Your task to perform on an android device: see creations saved in the google photos Image 0: 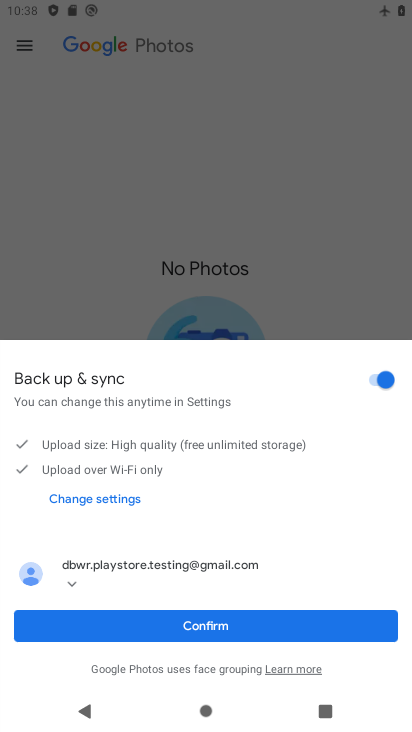
Step 0: press home button
Your task to perform on an android device: see creations saved in the google photos Image 1: 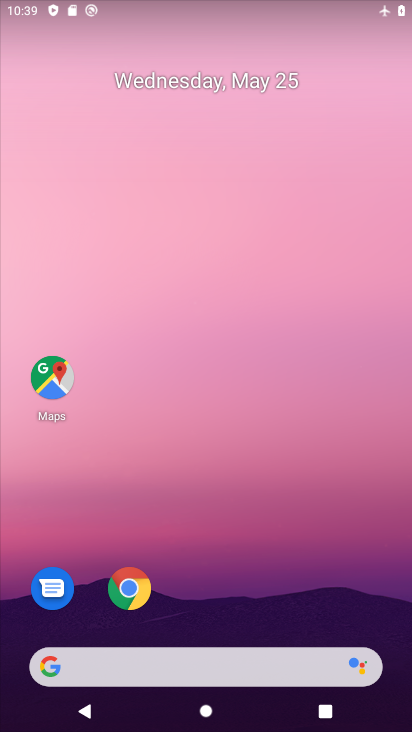
Step 1: drag from (223, 571) to (200, 79)
Your task to perform on an android device: see creations saved in the google photos Image 2: 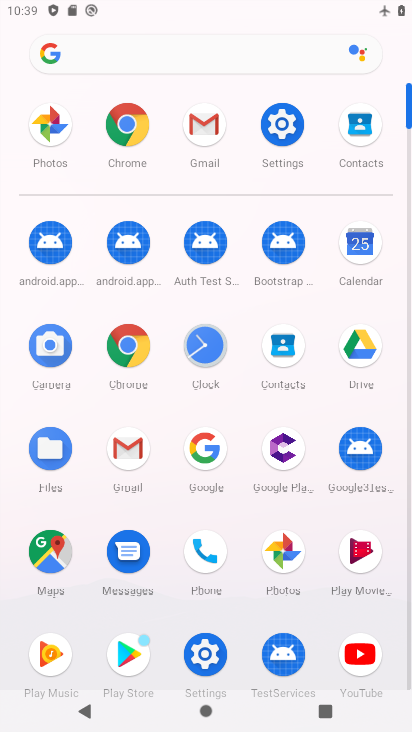
Step 2: click (61, 130)
Your task to perform on an android device: see creations saved in the google photos Image 3: 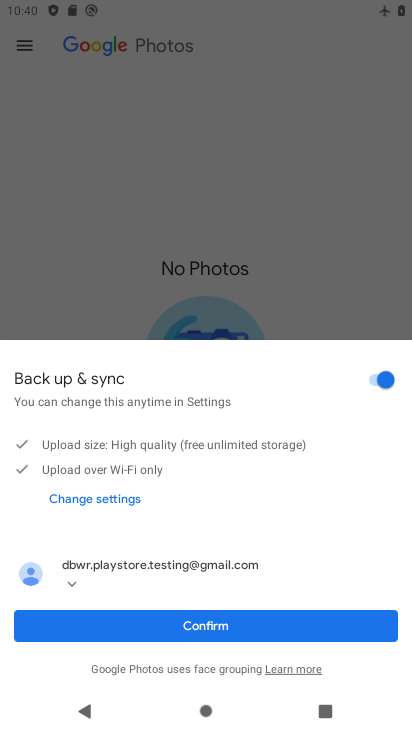
Step 3: click (217, 622)
Your task to perform on an android device: see creations saved in the google photos Image 4: 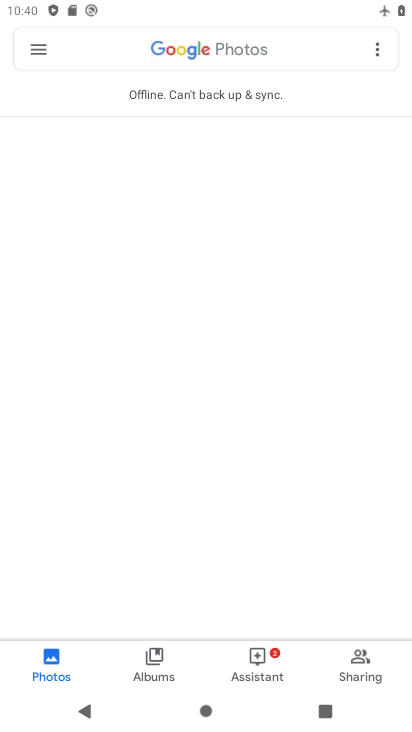
Step 4: click (273, 654)
Your task to perform on an android device: see creations saved in the google photos Image 5: 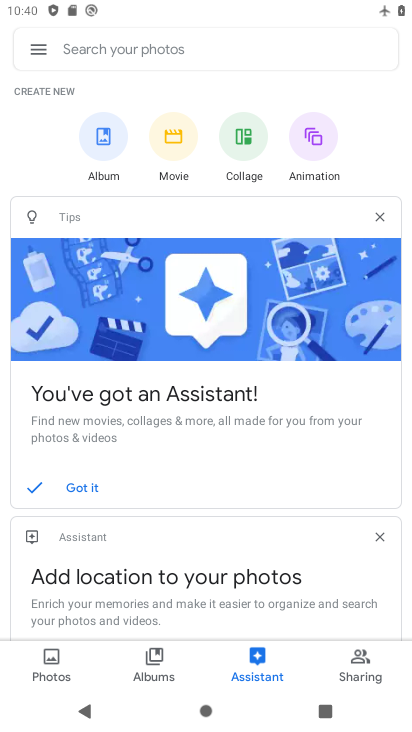
Step 5: task complete